Your task to perform on an android device: set default search engine in the chrome app Image 0: 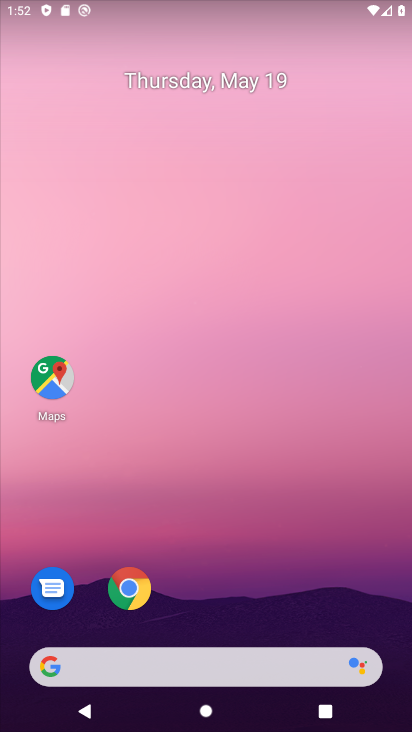
Step 0: click (150, 585)
Your task to perform on an android device: set default search engine in the chrome app Image 1: 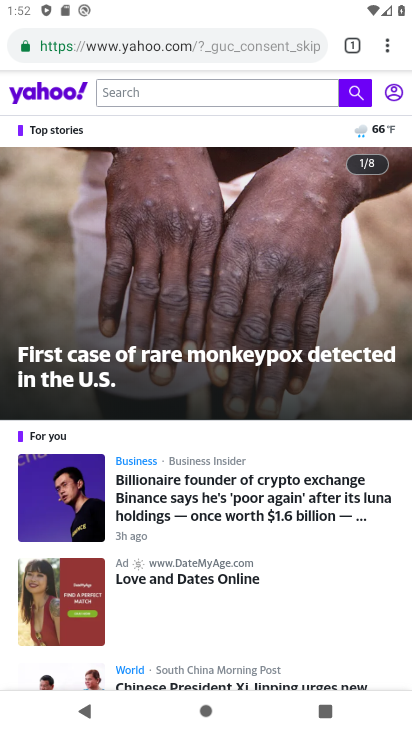
Step 1: drag from (393, 45) to (215, 549)
Your task to perform on an android device: set default search engine in the chrome app Image 2: 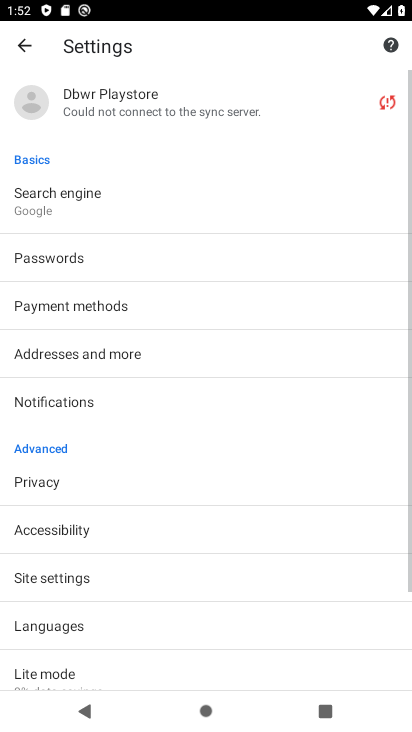
Step 2: click (98, 192)
Your task to perform on an android device: set default search engine in the chrome app Image 3: 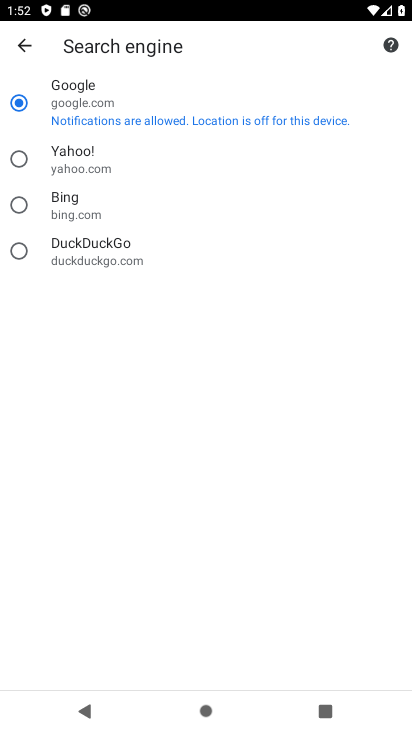
Step 3: task complete